Your task to perform on an android device: When is my next meeting? Image 0: 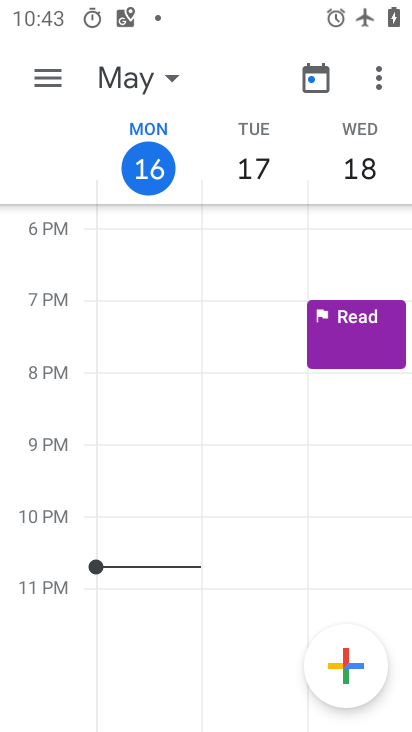
Step 0: press home button
Your task to perform on an android device: When is my next meeting? Image 1: 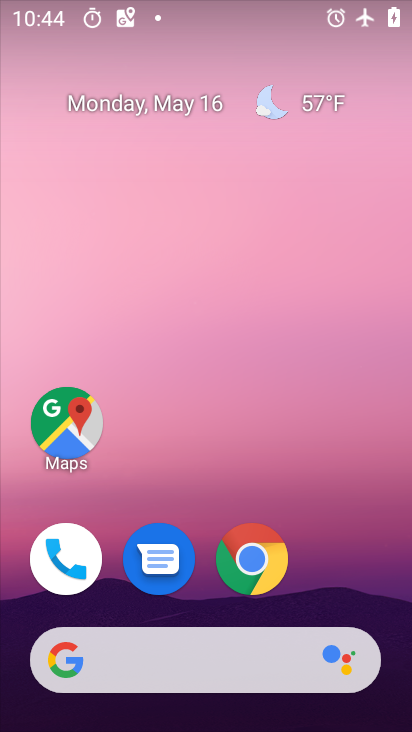
Step 1: drag from (308, 564) to (268, 150)
Your task to perform on an android device: When is my next meeting? Image 2: 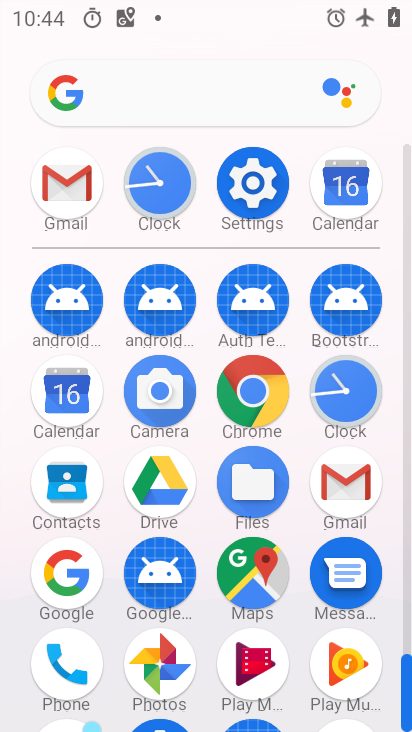
Step 2: click (68, 390)
Your task to perform on an android device: When is my next meeting? Image 3: 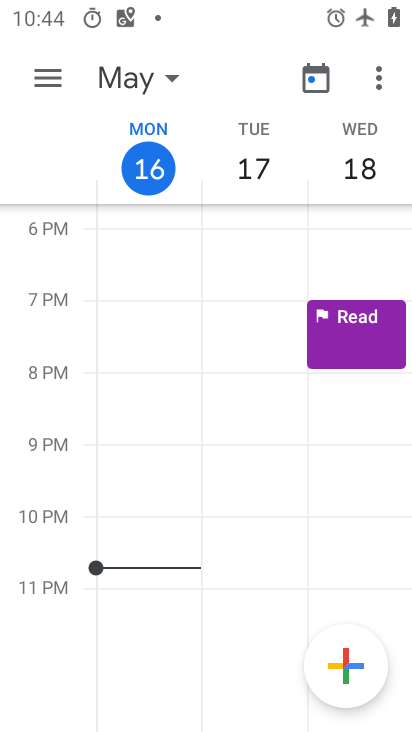
Step 3: task complete